Your task to perform on an android device: change your default location settings in chrome Image 0: 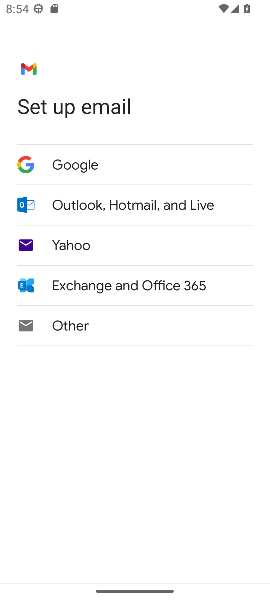
Step 0: press home button
Your task to perform on an android device: change your default location settings in chrome Image 1: 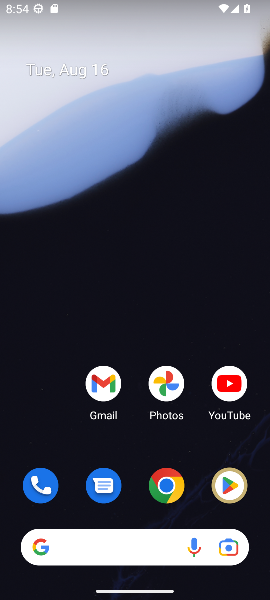
Step 1: click (166, 484)
Your task to perform on an android device: change your default location settings in chrome Image 2: 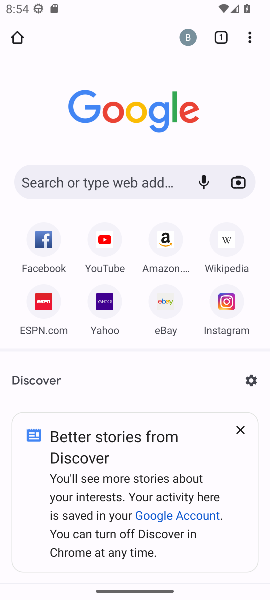
Step 2: click (247, 37)
Your task to perform on an android device: change your default location settings in chrome Image 3: 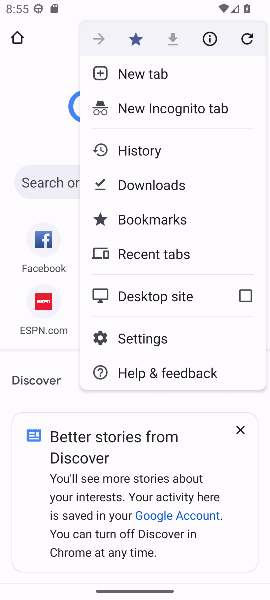
Step 3: click (177, 334)
Your task to perform on an android device: change your default location settings in chrome Image 4: 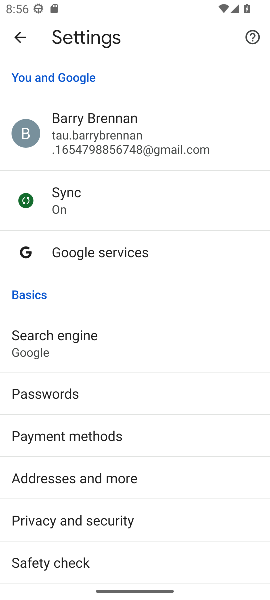
Step 4: click (146, 472)
Your task to perform on an android device: change your default location settings in chrome Image 5: 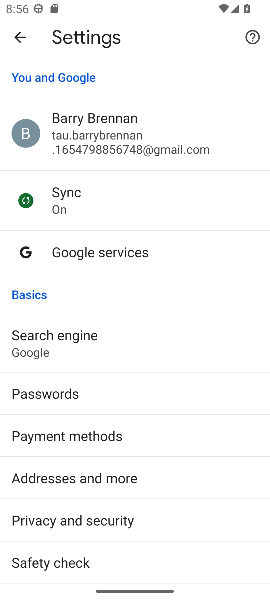
Step 5: drag from (146, 472) to (94, 247)
Your task to perform on an android device: change your default location settings in chrome Image 6: 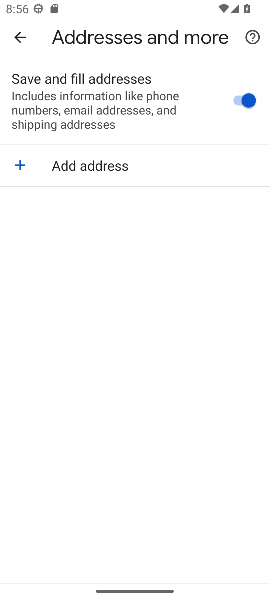
Step 6: click (24, 31)
Your task to perform on an android device: change your default location settings in chrome Image 7: 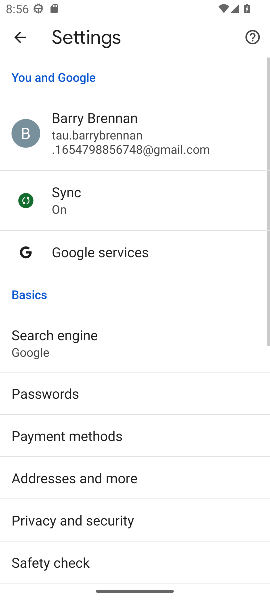
Step 7: drag from (143, 430) to (87, 270)
Your task to perform on an android device: change your default location settings in chrome Image 8: 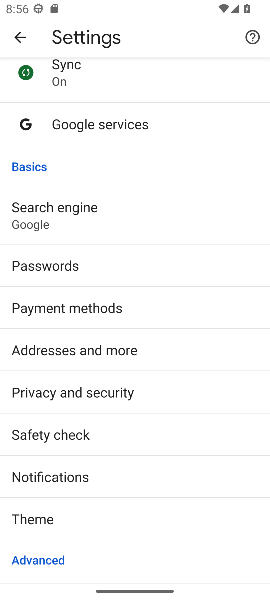
Step 8: drag from (136, 567) to (107, 323)
Your task to perform on an android device: change your default location settings in chrome Image 9: 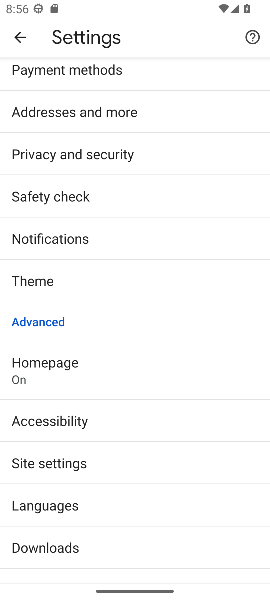
Step 9: drag from (137, 550) to (85, 389)
Your task to perform on an android device: change your default location settings in chrome Image 10: 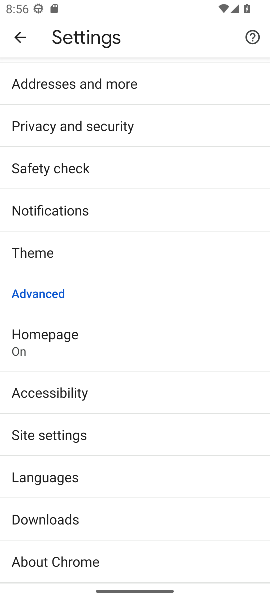
Step 10: click (81, 421)
Your task to perform on an android device: change your default location settings in chrome Image 11: 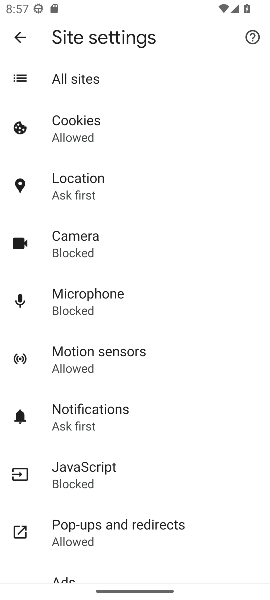
Step 11: click (97, 181)
Your task to perform on an android device: change your default location settings in chrome Image 12: 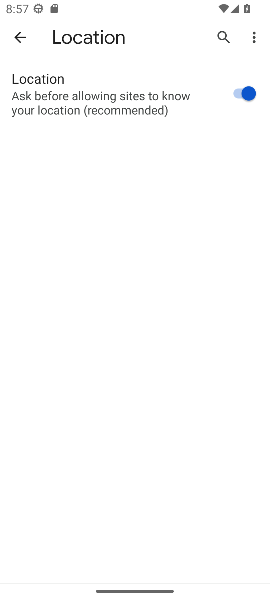
Step 12: click (244, 92)
Your task to perform on an android device: change your default location settings in chrome Image 13: 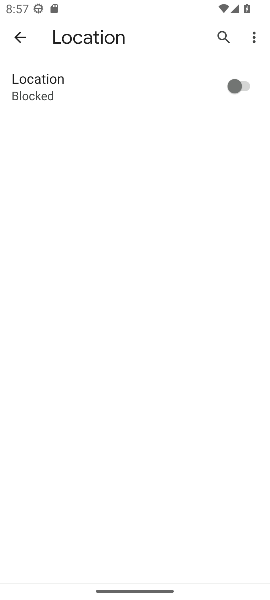
Step 13: task complete